Your task to perform on an android device: open app "Pinterest" Image 0: 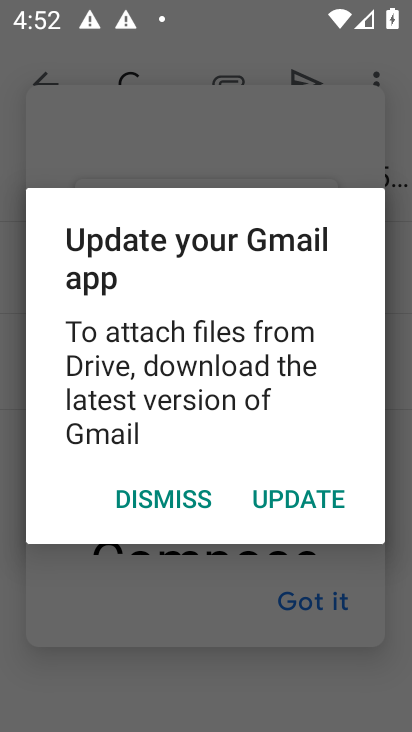
Step 0: click (160, 496)
Your task to perform on an android device: open app "Pinterest" Image 1: 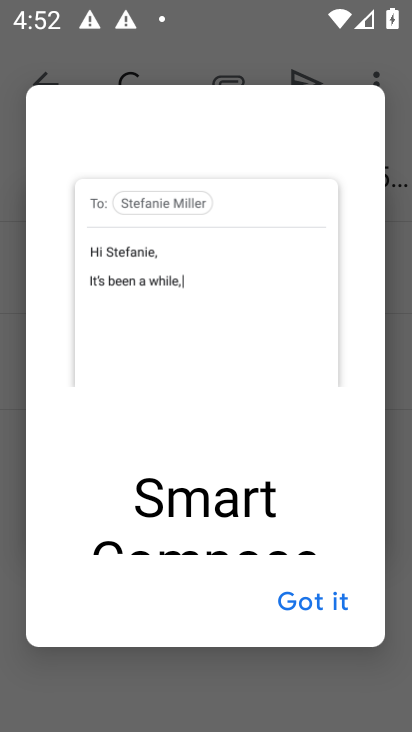
Step 1: press back button
Your task to perform on an android device: open app "Pinterest" Image 2: 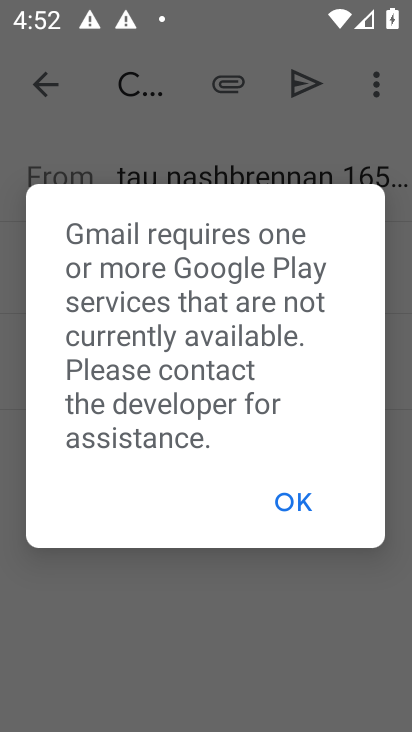
Step 2: click (295, 501)
Your task to perform on an android device: open app "Pinterest" Image 3: 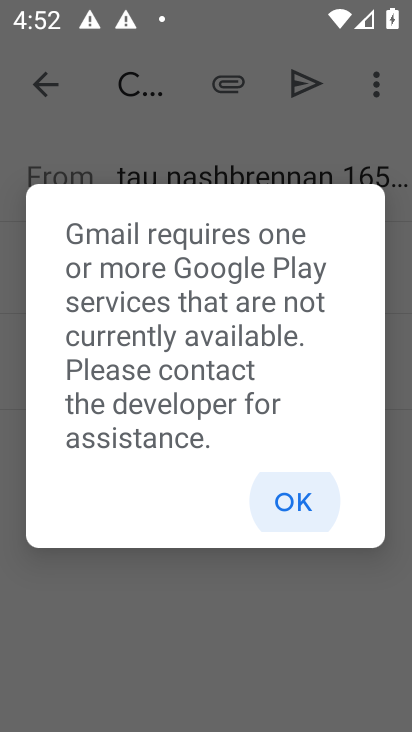
Step 3: click (295, 501)
Your task to perform on an android device: open app "Pinterest" Image 4: 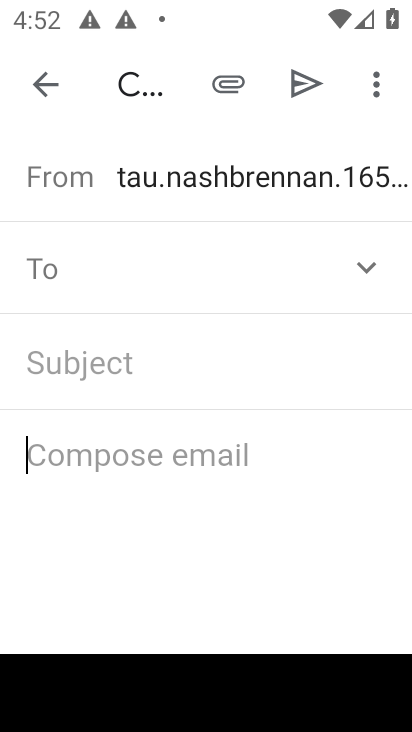
Step 4: click (40, 95)
Your task to perform on an android device: open app "Pinterest" Image 5: 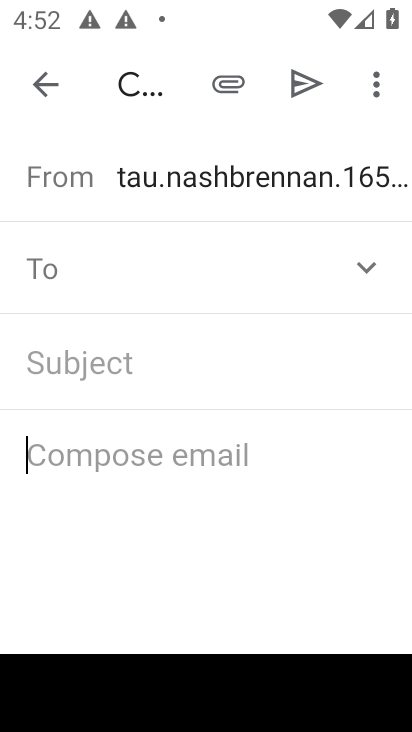
Step 5: click (36, 98)
Your task to perform on an android device: open app "Pinterest" Image 6: 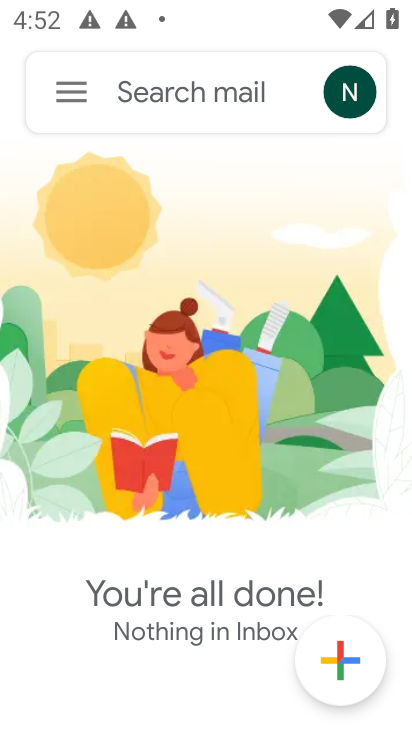
Step 6: press back button
Your task to perform on an android device: open app "Pinterest" Image 7: 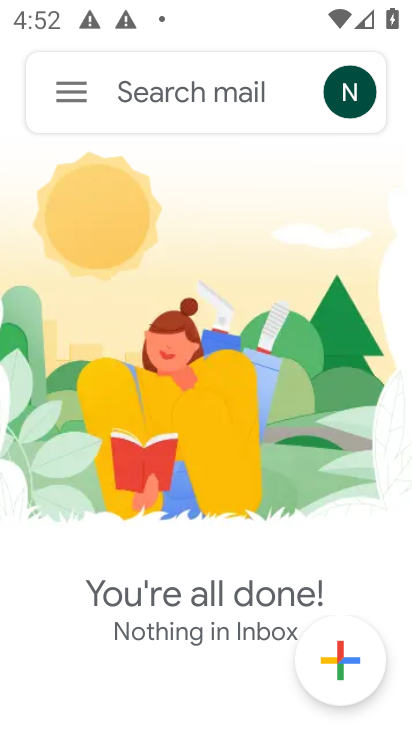
Step 7: press back button
Your task to perform on an android device: open app "Pinterest" Image 8: 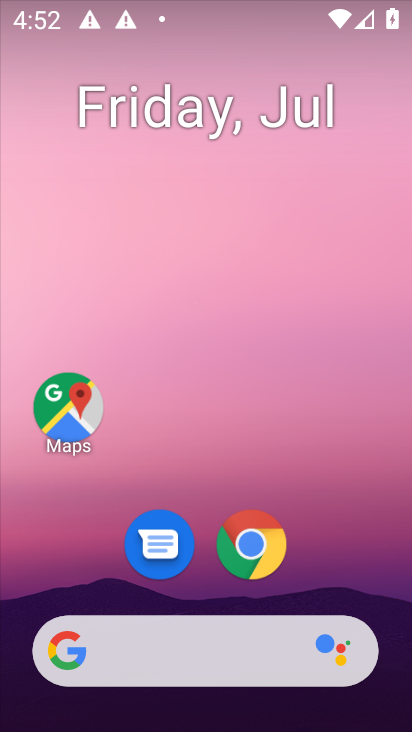
Step 8: drag from (220, 527) to (203, 83)
Your task to perform on an android device: open app "Pinterest" Image 9: 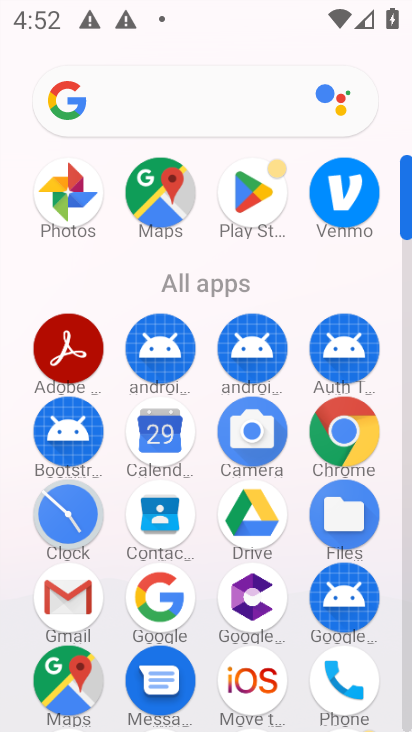
Step 9: click (131, 86)
Your task to perform on an android device: open app "Pinterest" Image 10: 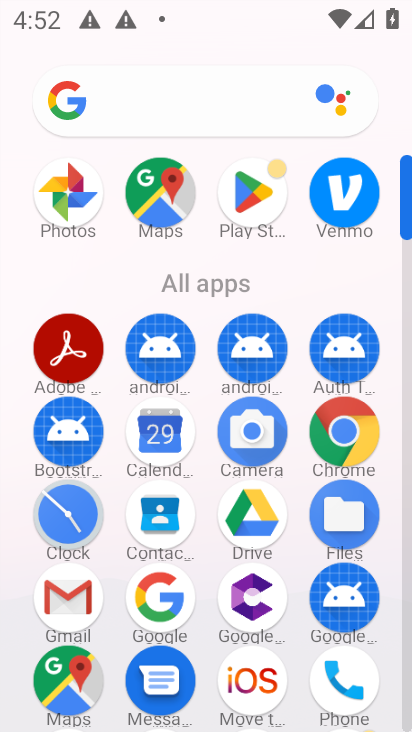
Step 10: click (122, 93)
Your task to perform on an android device: open app "Pinterest" Image 11: 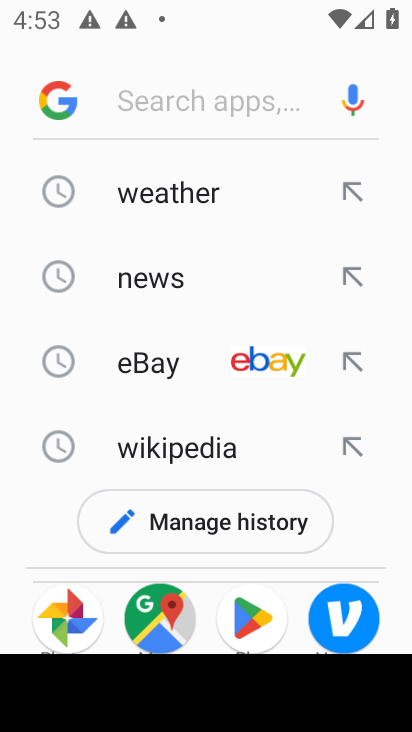
Step 11: type "pinterest"
Your task to perform on an android device: open app "Pinterest" Image 12: 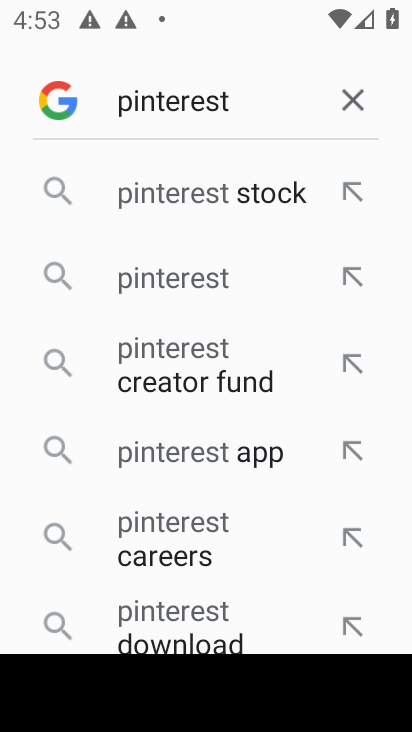
Step 12: click (165, 274)
Your task to perform on an android device: open app "Pinterest" Image 13: 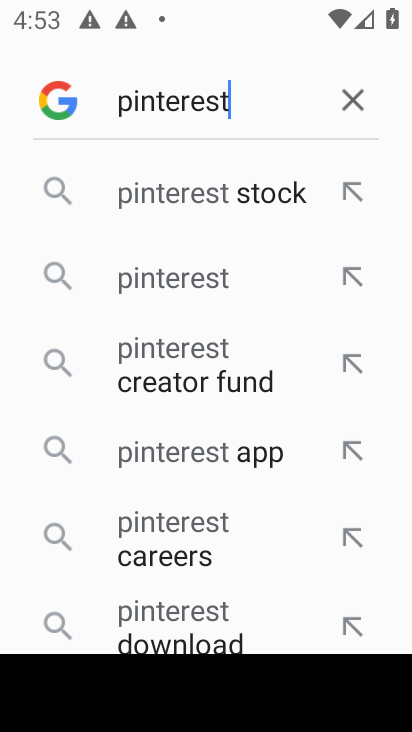
Step 13: click (165, 274)
Your task to perform on an android device: open app "Pinterest" Image 14: 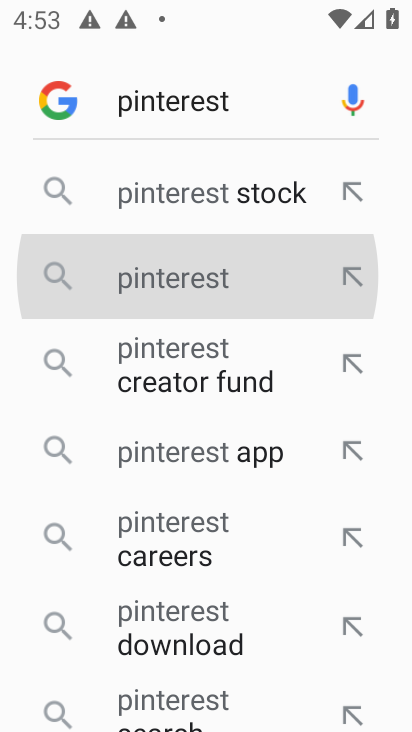
Step 14: click (166, 276)
Your task to perform on an android device: open app "Pinterest" Image 15: 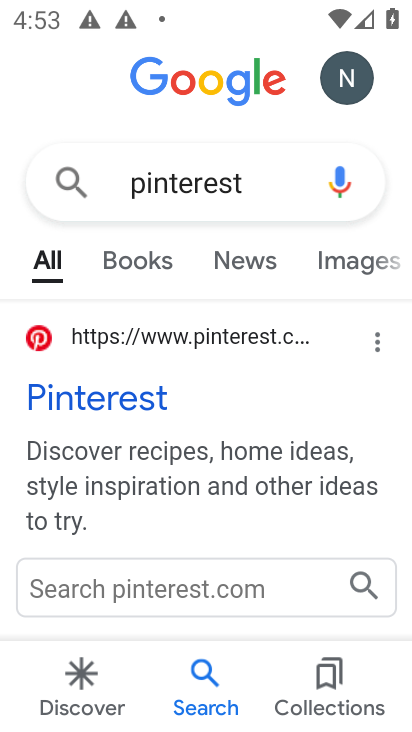
Step 15: task complete